Your task to perform on an android device: change the upload size in google photos Image 0: 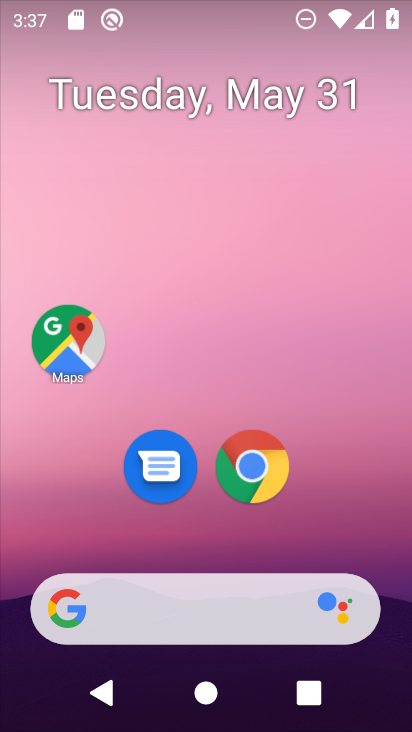
Step 0: drag from (214, 445) to (214, 70)
Your task to perform on an android device: change the upload size in google photos Image 1: 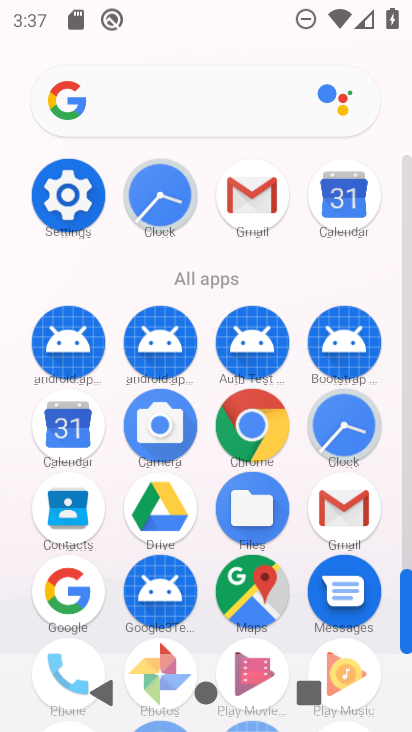
Step 1: click (150, 651)
Your task to perform on an android device: change the upload size in google photos Image 2: 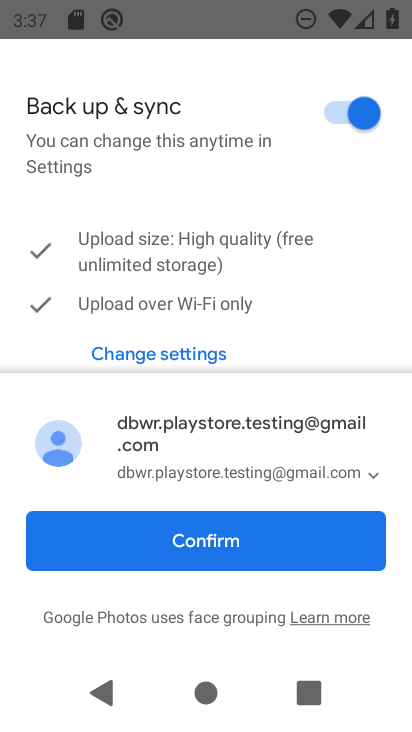
Step 2: click (230, 539)
Your task to perform on an android device: change the upload size in google photos Image 3: 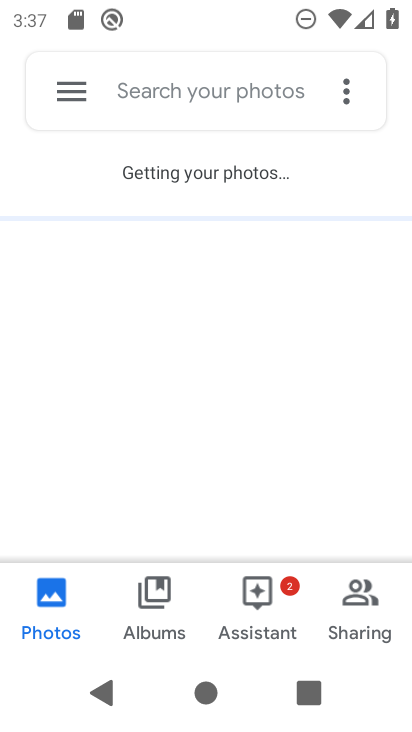
Step 3: click (54, 94)
Your task to perform on an android device: change the upload size in google photos Image 4: 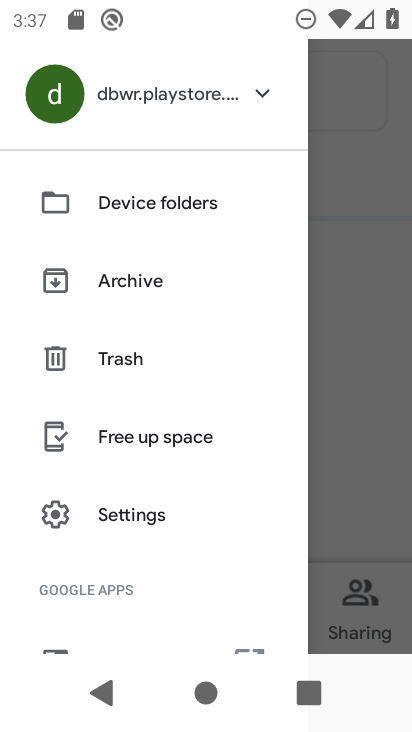
Step 4: click (118, 518)
Your task to perform on an android device: change the upload size in google photos Image 5: 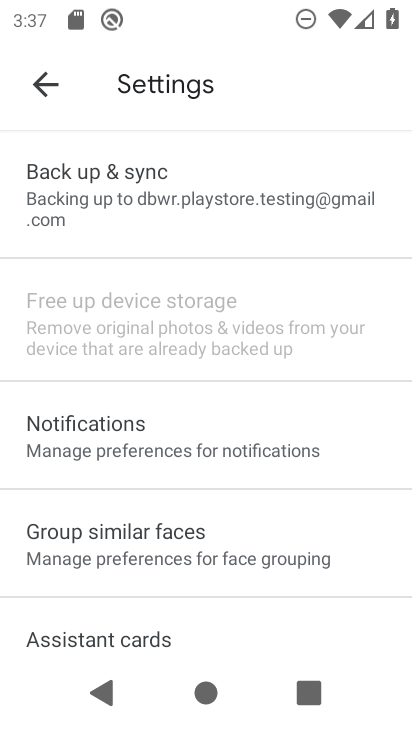
Step 5: click (185, 194)
Your task to perform on an android device: change the upload size in google photos Image 6: 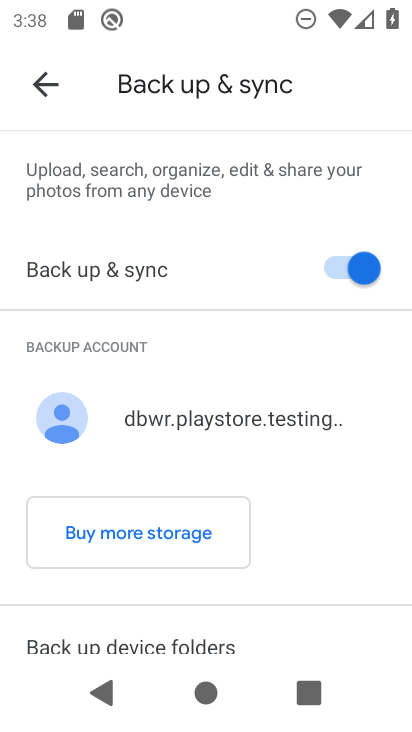
Step 6: drag from (157, 499) to (238, 122)
Your task to perform on an android device: change the upload size in google photos Image 7: 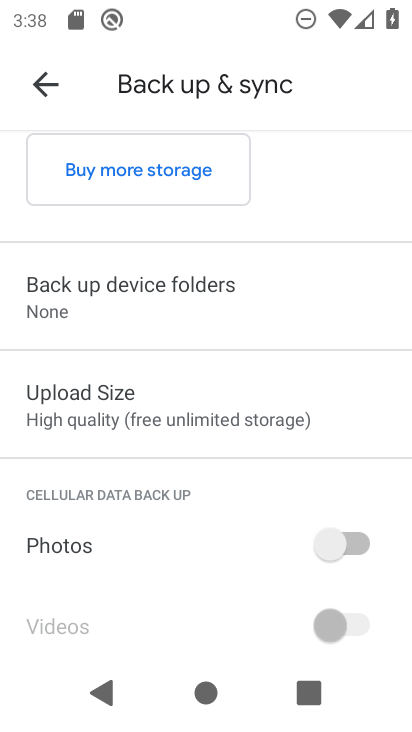
Step 7: click (169, 422)
Your task to perform on an android device: change the upload size in google photos Image 8: 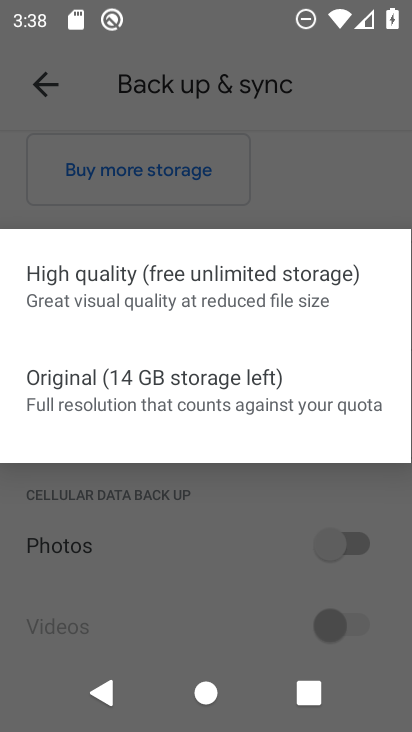
Step 8: click (122, 382)
Your task to perform on an android device: change the upload size in google photos Image 9: 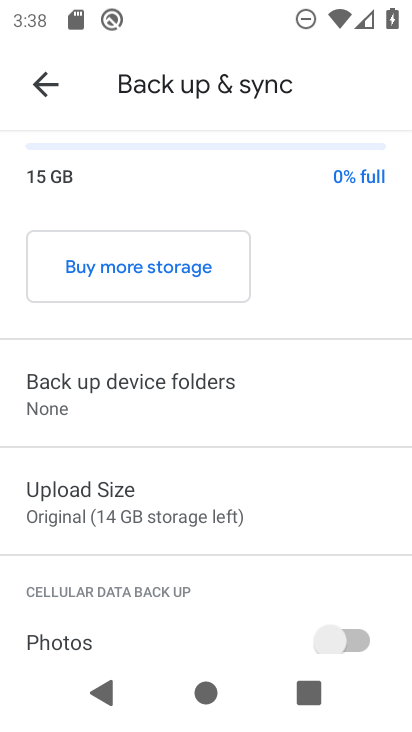
Step 9: task complete